Your task to perform on an android device: Go to Yahoo.com Image 0: 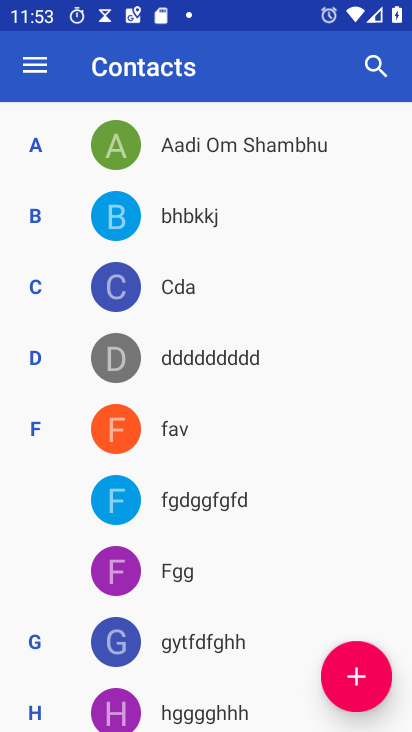
Step 0: press home button
Your task to perform on an android device: Go to Yahoo.com Image 1: 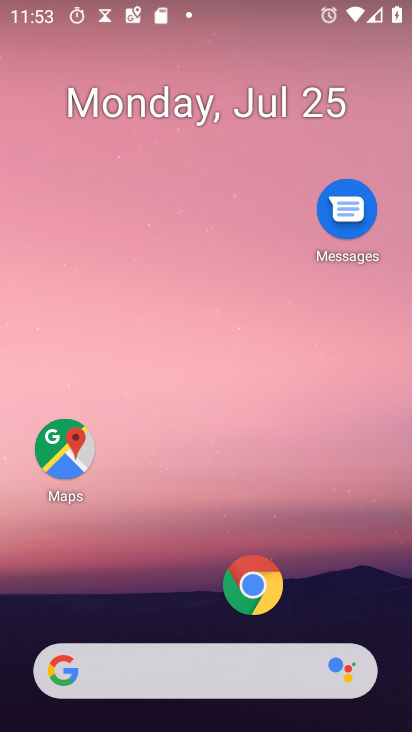
Step 1: click (244, 582)
Your task to perform on an android device: Go to Yahoo.com Image 2: 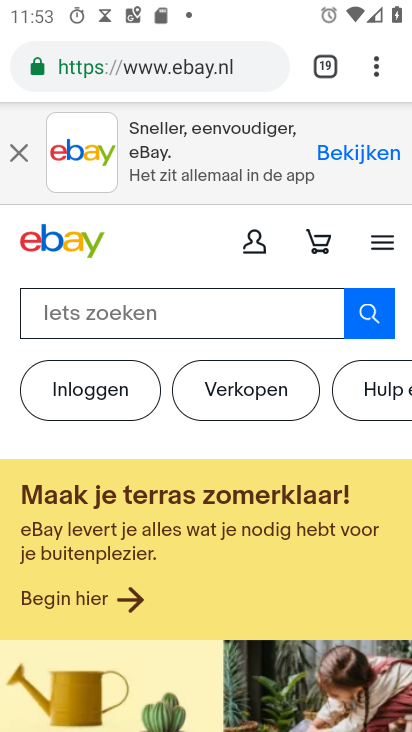
Step 2: drag from (376, 80) to (114, 125)
Your task to perform on an android device: Go to Yahoo.com Image 3: 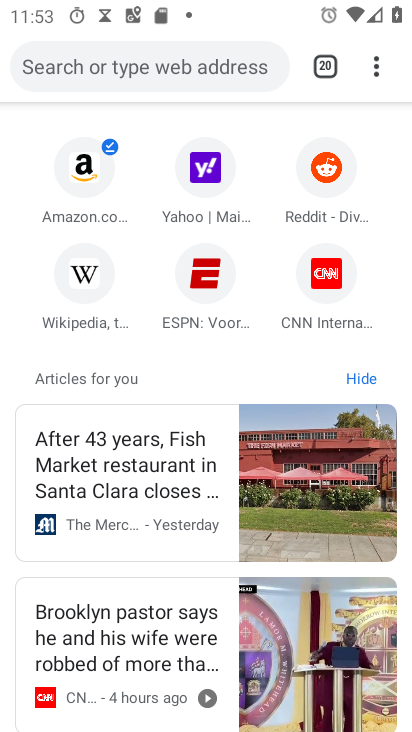
Step 3: click (198, 180)
Your task to perform on an android device: Go to Yahoo.com Image 4: 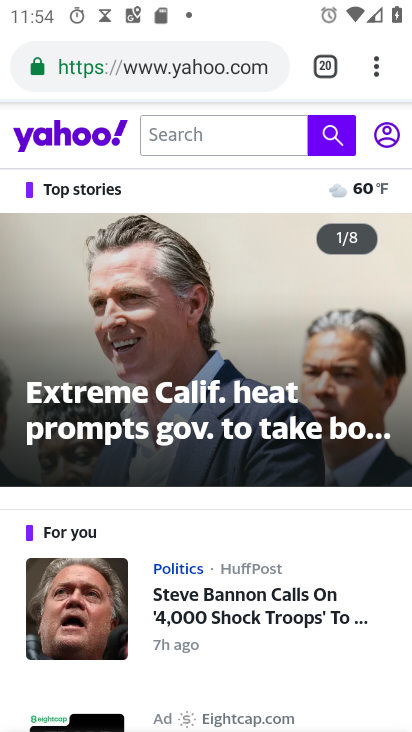
Step 4: task complete